Your task to perform on an android device: install app "Adobe Acrobat Reader" Image 0: 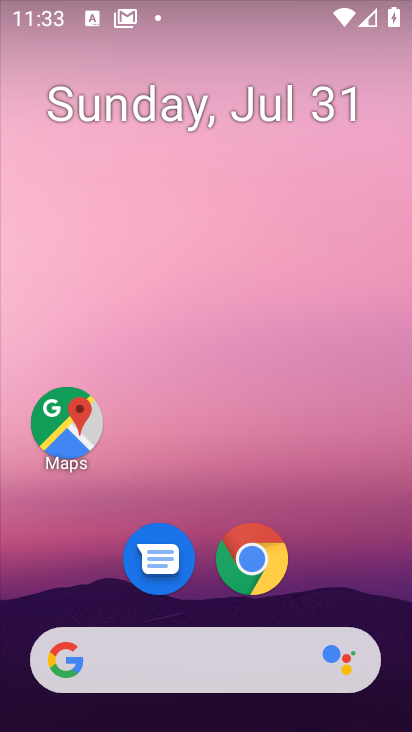
Step 0: drag from (60, 558) to (103, 10)
Your task to perform on an android device: install app "Adobe Acrobat Reader" Image 1: 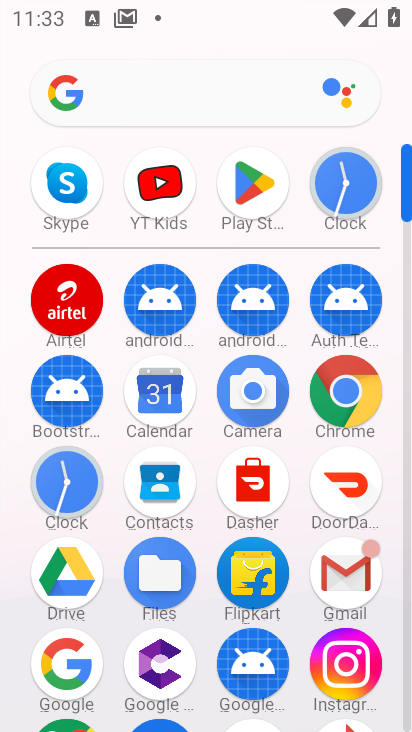
Step 1: click (261, 180)
Your task to perform on an android device: install app "Adobe Acrobat Reader" Image 2: 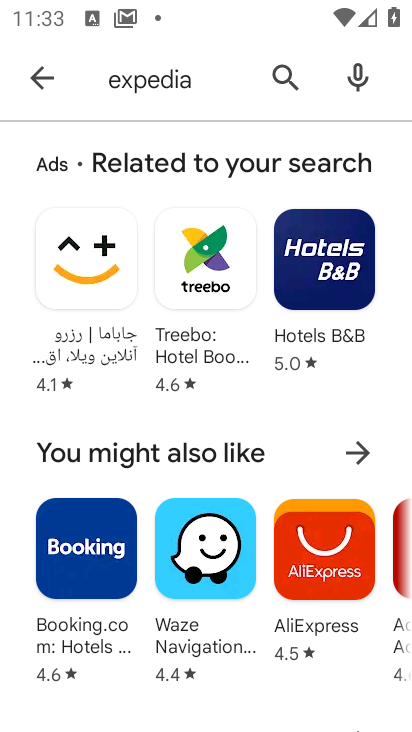
Step 2: click (279, 73)
Your task to perform on an android device: install app "Adobe Acrobat Reader" Image 3: 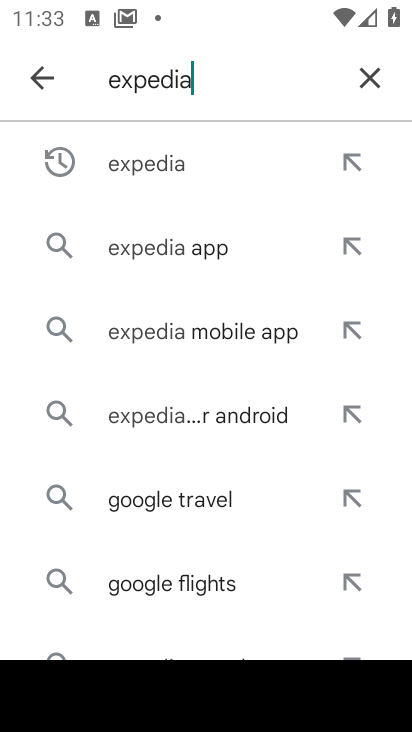
Step 3: click (365, 75)
Your task to perform on an android device: install app "Adobe Acrobat Reader" Image 4: 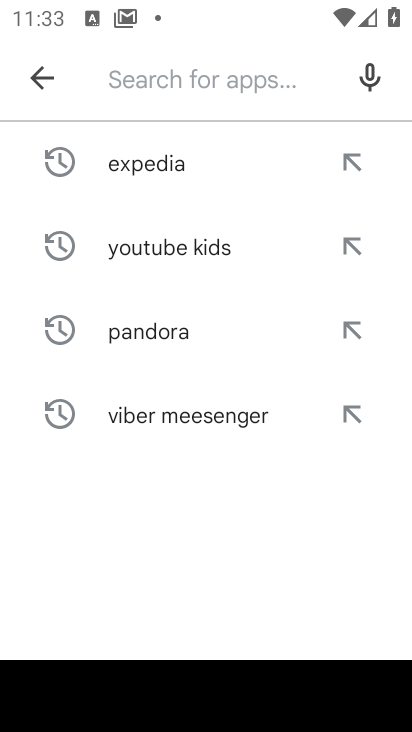
Step 4: click (142, 69)
Your task to perform on an android device: install app "Adobe Acrobat Reader" Image 5: 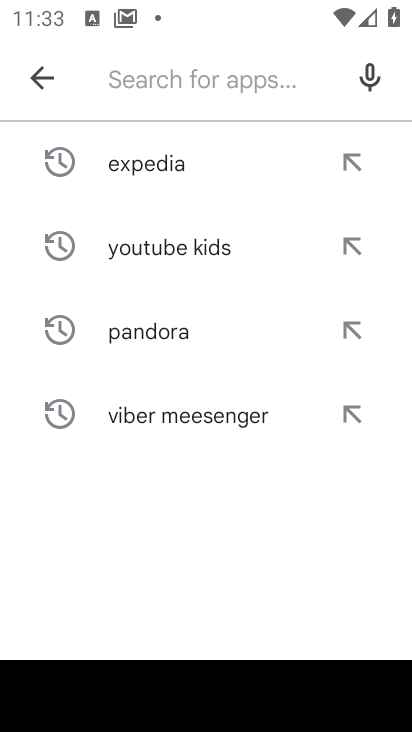
Step 5: type "adobe acrobat reader"
Your task to perform on an android device: install app "Adobe Acrobat Reader" Image 6: 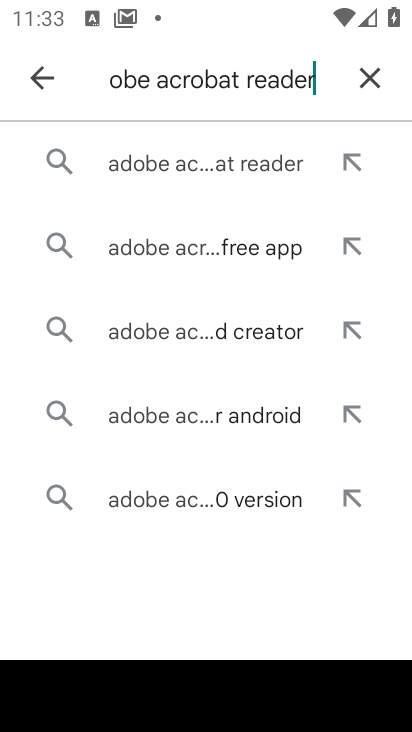
Step 6: click (201, 168)
Your task to perform on an android device: install app "Adobe Acrobat Reader" Image 7: 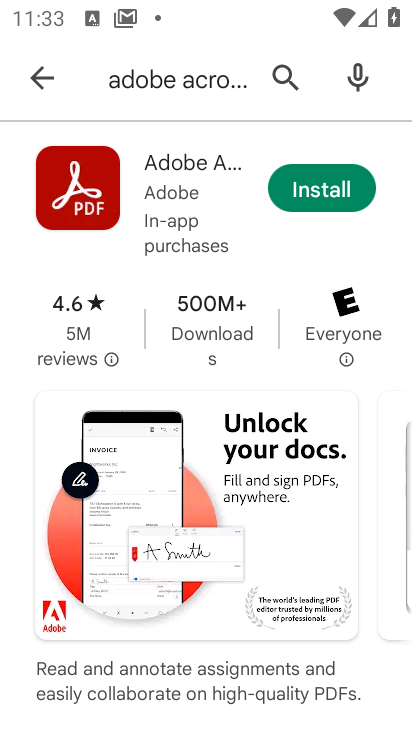
Step 7: click (329, 192)
Your task to perform on an android device: install app "Adobe Acrobat Reader" Image 8: 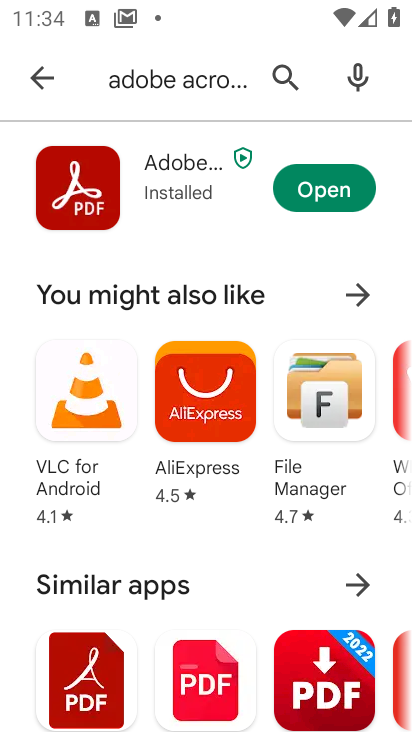
Step 8: click (322, 195)
Your task to perform on an android device: install app "Adobe Acrobat Reader" Image 9: 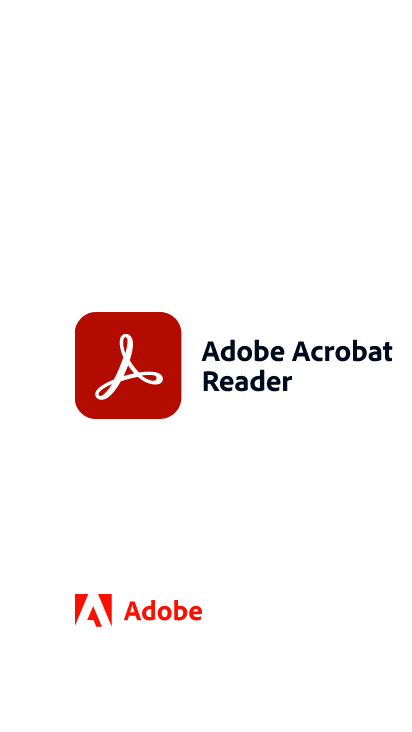
Step 9: task complete